Your task to perform on an android device: turn on translation in the chrome app Image 0: 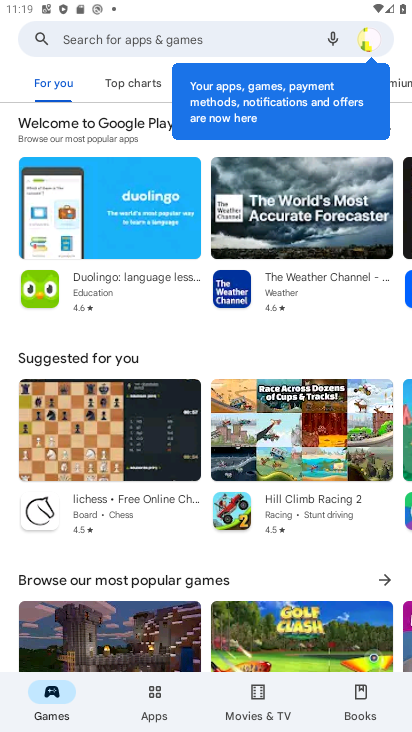
Step 0: press home button
Your task to perform on an android device: turn on translation in the chrome app Image 1: 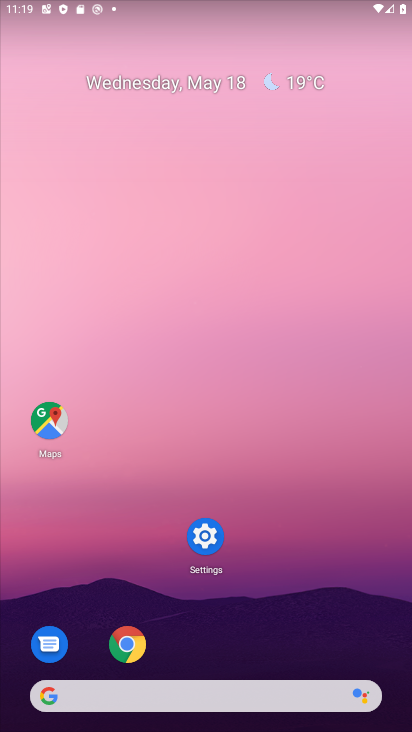
Step 1: drag from (318, 640) to (315, 196)
Your task to perform on an android device: turn on translation in the chrome app Image 2: 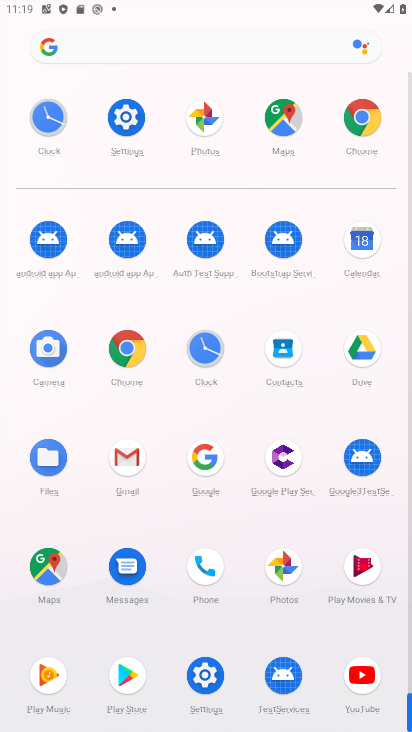
Step 2: click (136, 334)
Your task to perform on an android device: turn on translation in the chrome app Image 3: 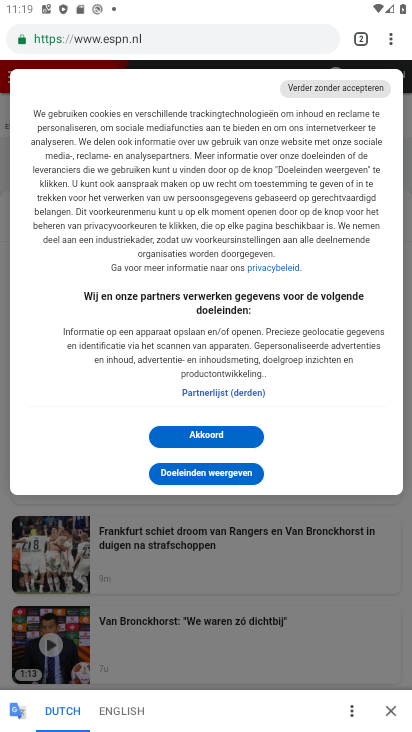
Step 3: drag from (390, 34) to (284, 464)
Your task to perform on an android device: turn on translation in the chrome app Image 4: 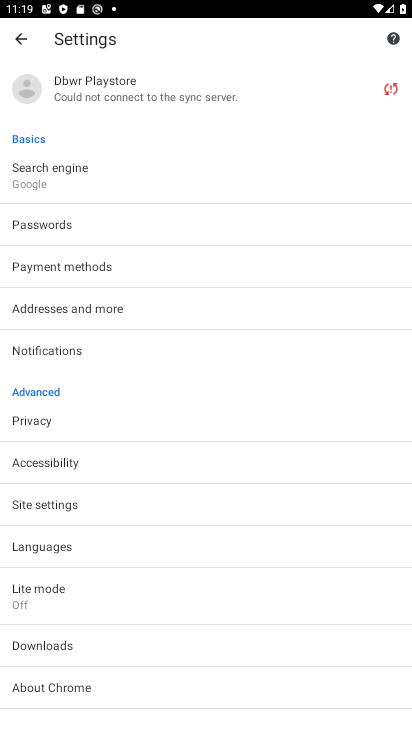
Step 4: drag from (155, 699) to (167, 537)
Your task to perform on an android device: turn on translation in the chrome app Image 5: 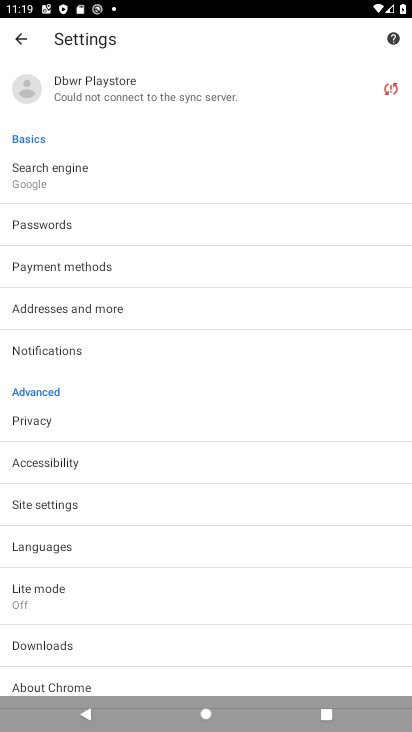
Step 5: click (56, 541)
Your task to perform on an android device: turn on translation in the chrome app Image 6: 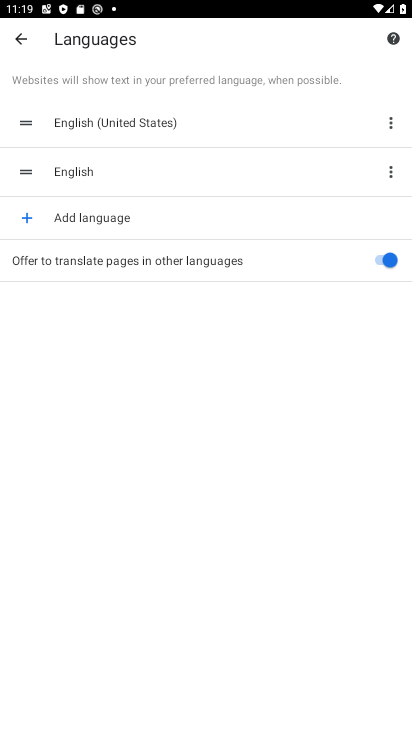
Step 6: task complete